Your task to perform on an android device: open app "Pinterest" (install if not already installed) and go to login screen Image 0: 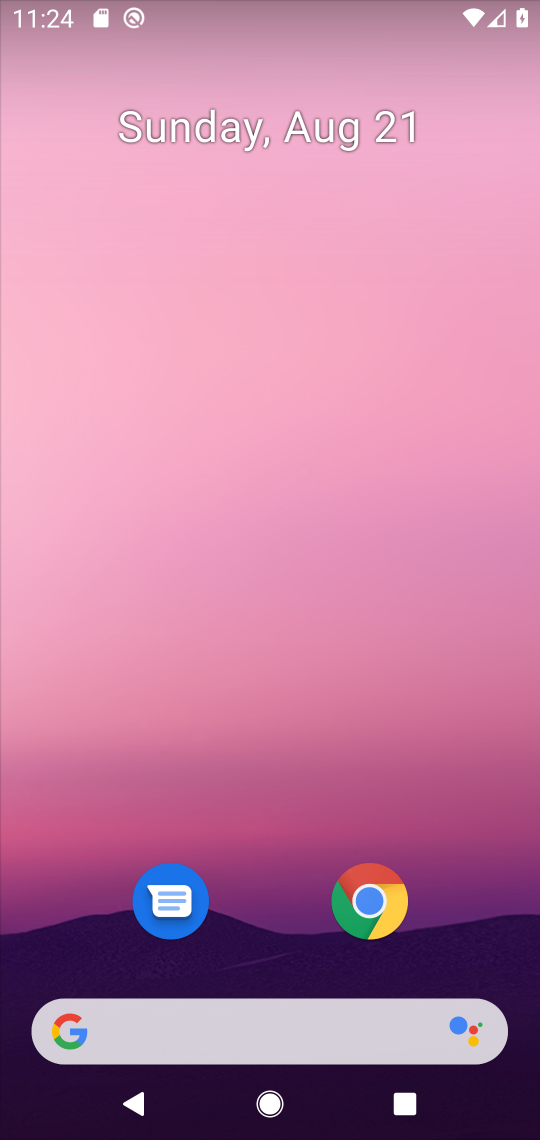
Step 0: drag from (264, 964) to (351, 240)
Your task to perform on an android device: open app "Pinterest" (install if not already installed) and go to login screen Image 1: 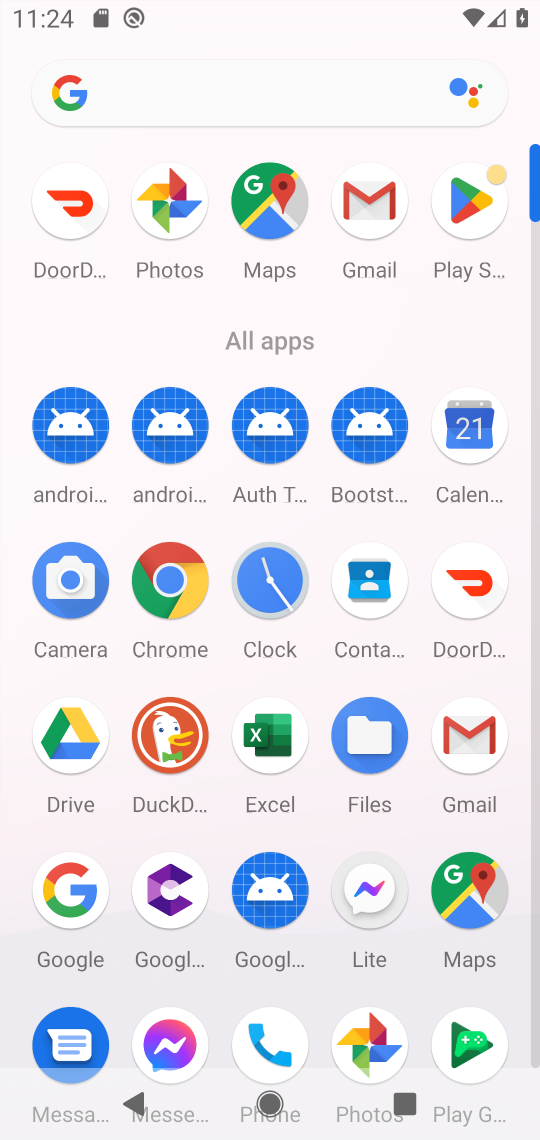
Step 1: click (471, 280)
Your task to perform on an android device: open app "Pinterest" (install if not already installed) and go to login screen Image 2: 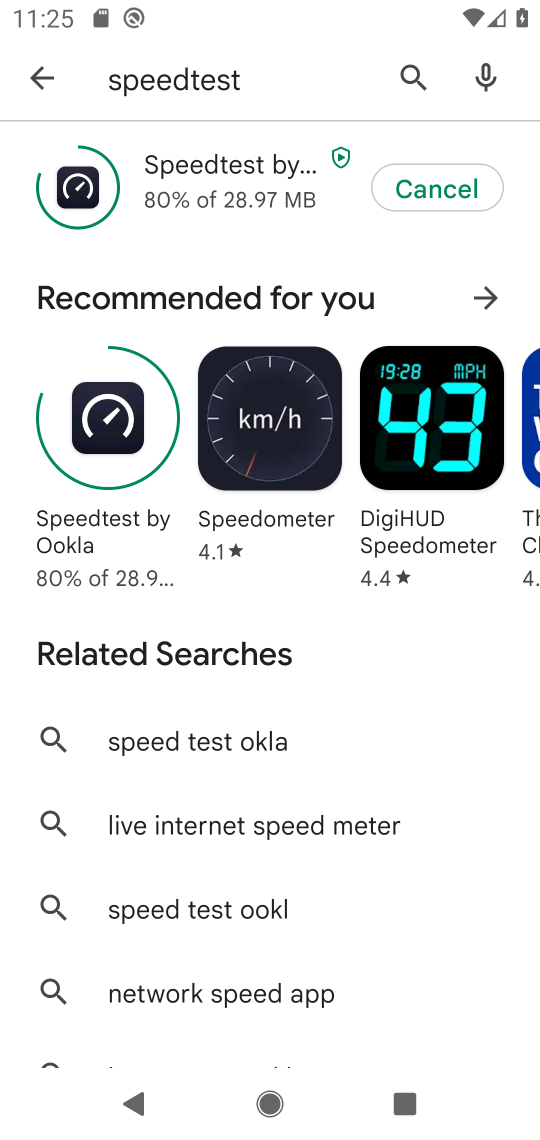
Step 2: click (402, 94)
Your task to perform on an android device: open app "Pinterest" (install if not already installed) and go to login screen Image 3: 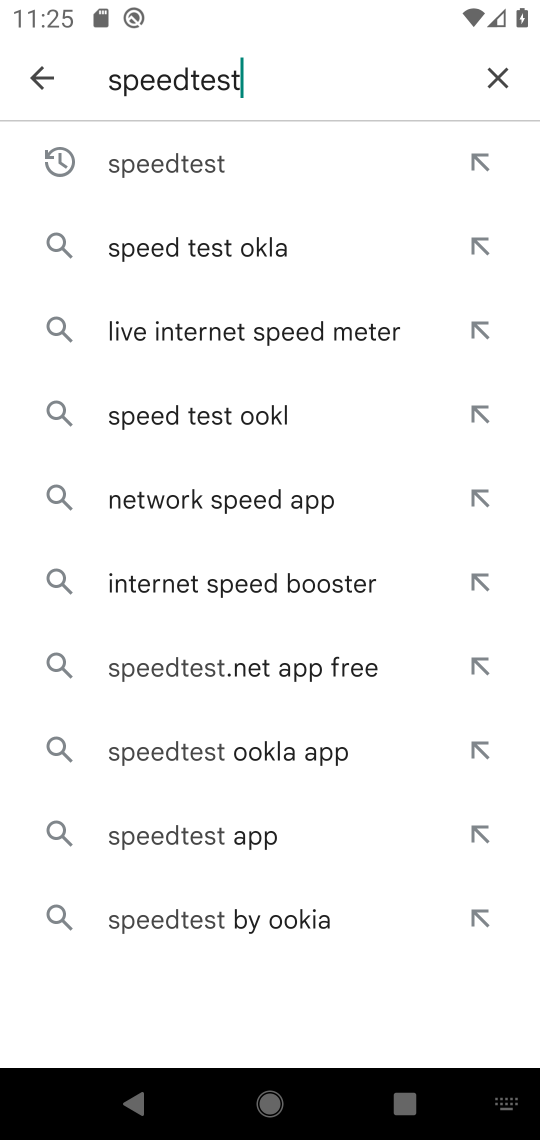
Step 3: click (491, 96)
Your task to perform on an android device: open app "Pinterest" (install if not already installed) and go to login screen Image 4: 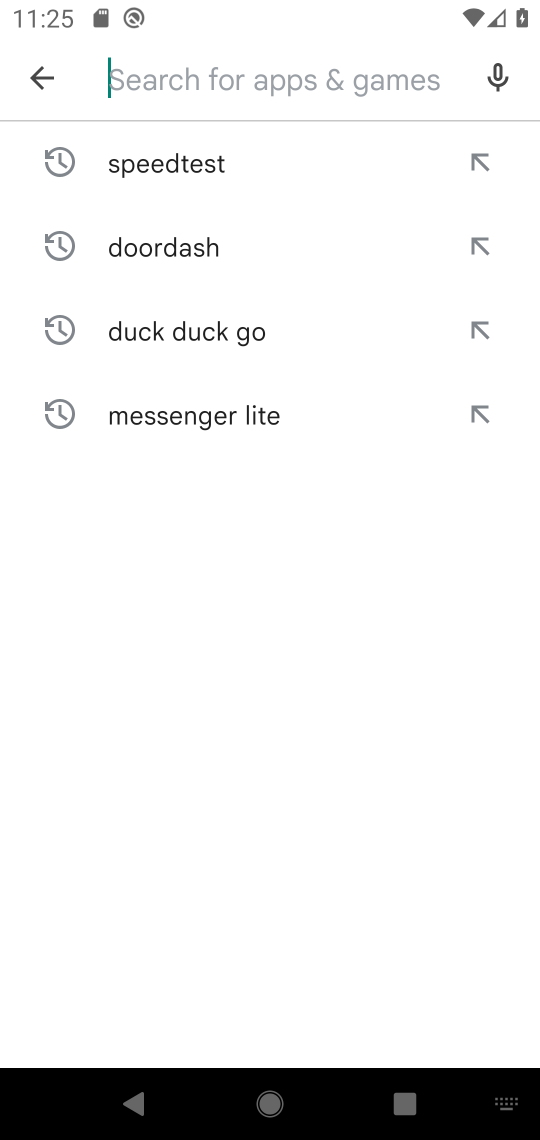
Step 4: type "pinterrest"
Your task to perform on an android device: open app "Pinterest" (install if not already installed) and go to login screen Image 5: 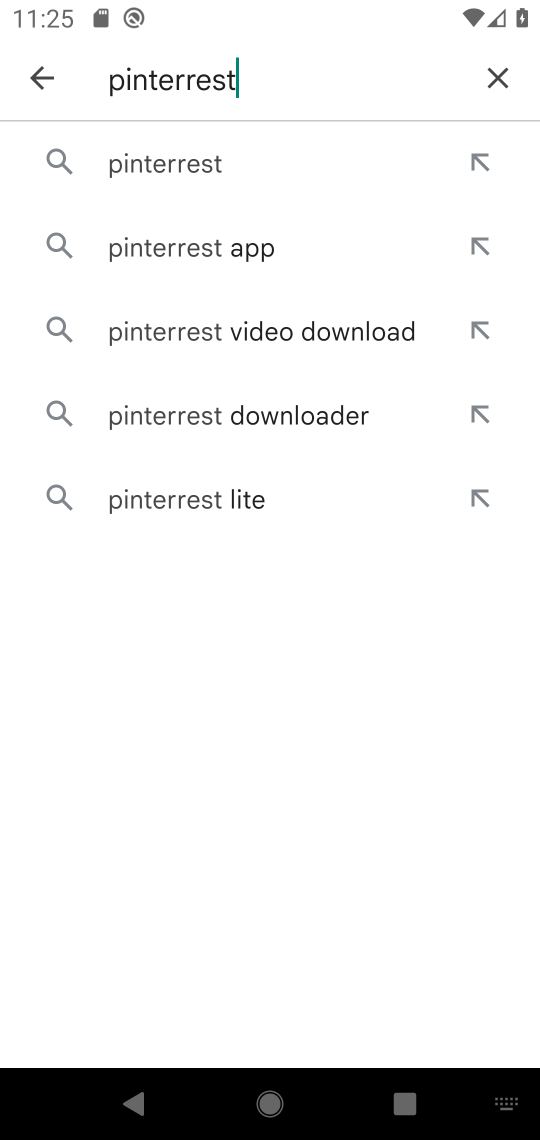
Step 5: click (133, 148)
Your task to perform on an android device: open app "Pinterest" (install if not already installed) and go to login screen Image 6: 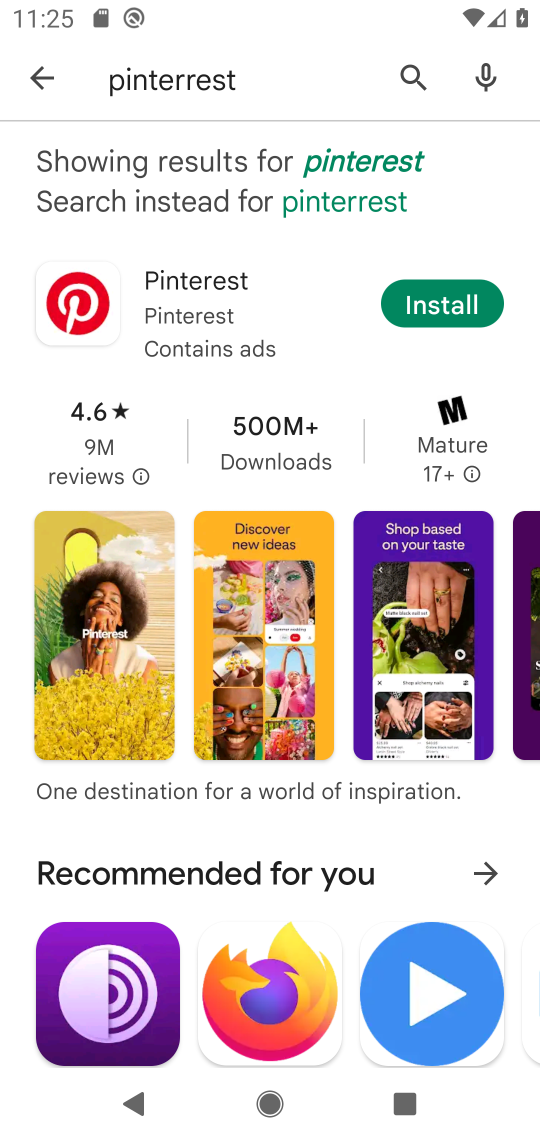
Step 6: click (446, 295)
Your task to perform on an android device: open app "Pinterest" (install if not already installed) and go to login screen Image 7: 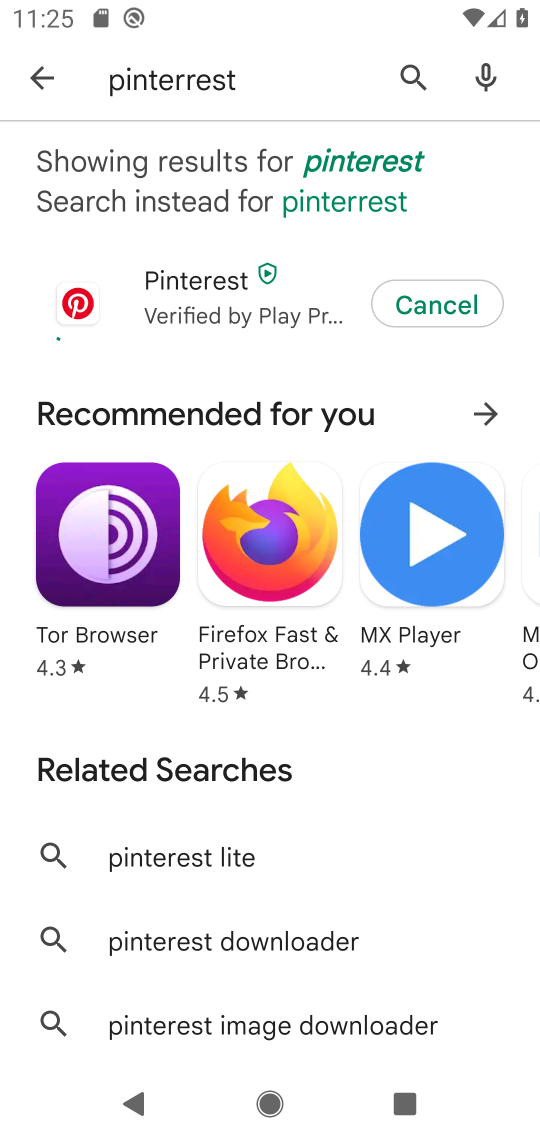
Step 7: task complete